Your task to perform on an android device: turn off smart reply in the gmail app Image 0: 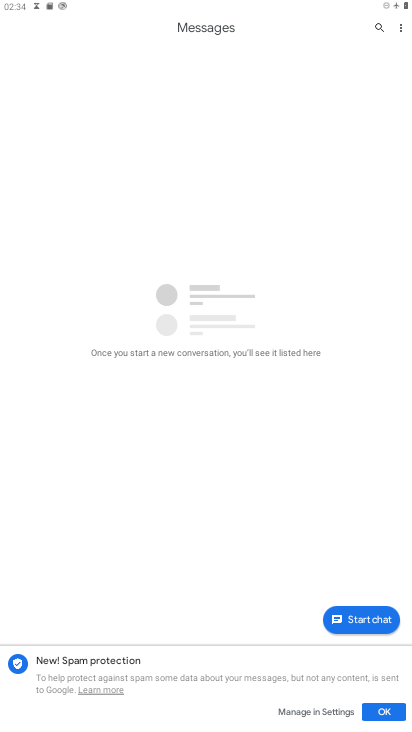
Step 0: press home button
Your task to perform on an android device: turn off smart reply in the gmail app Image 1: 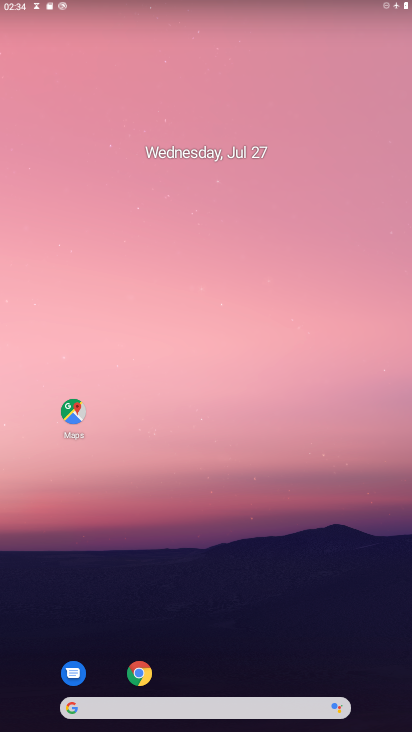
Step 1: drag from (172, 647) to (197, 231)
Your task to perform on an android device: turn off smart reply in the gmail app Image 2: 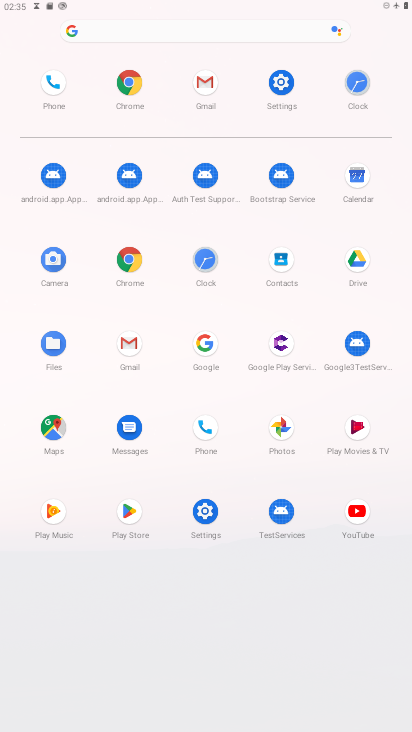
Step 2: click (124, 345)
Your task to perform on an android device: turn off smart reply in the gmail app Image 3: 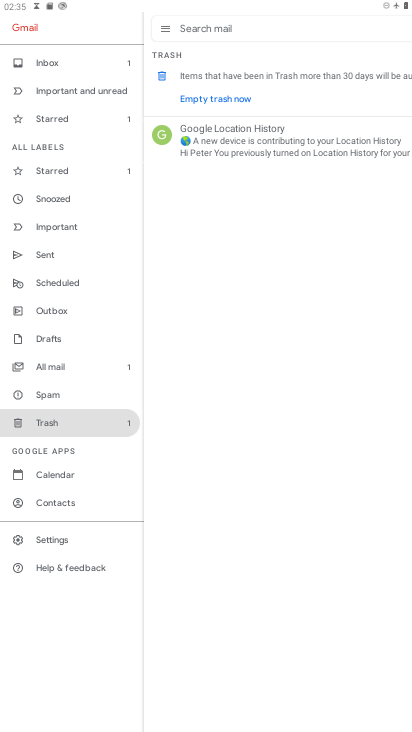
Step 3: click (52, 530)
Your task to perform on an android device: turn off smart reply in the gmail app Image 4: 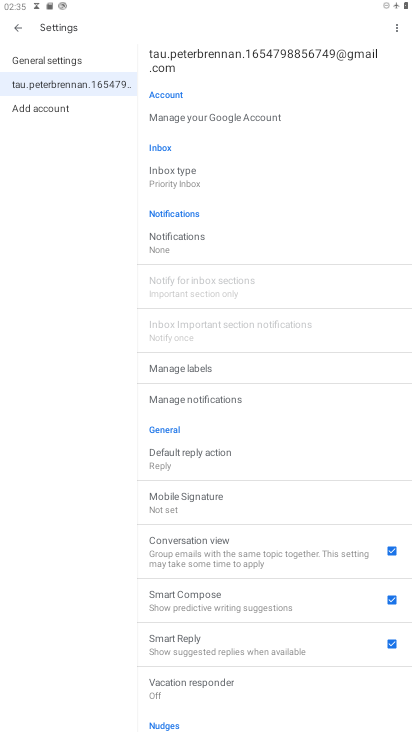
Step 4: click (390, 644)
Your task to perform on an android device: turn off smart reply in the gmail app Image 5: 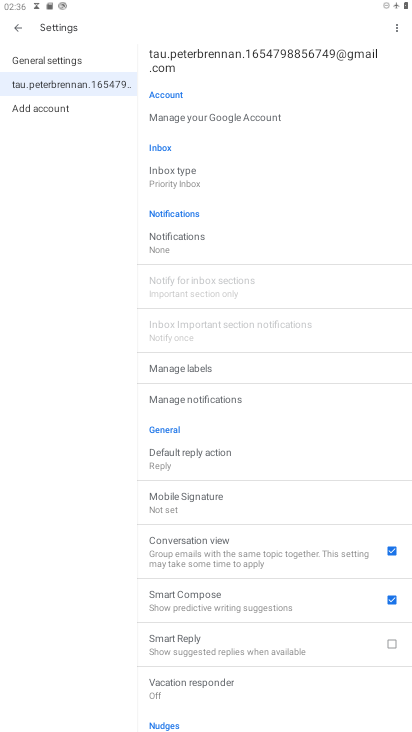
Step 5: task complete